Your task to perform on an android device: check out phone information Image 0: 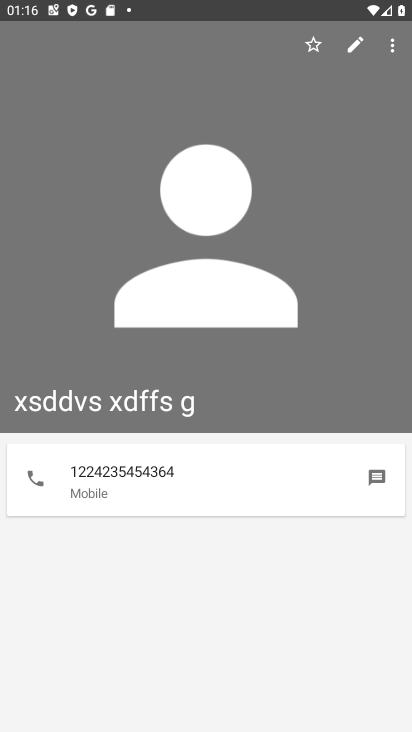
Step 0: press home button
Your task to perform on an android device: check out phone information Image 1: 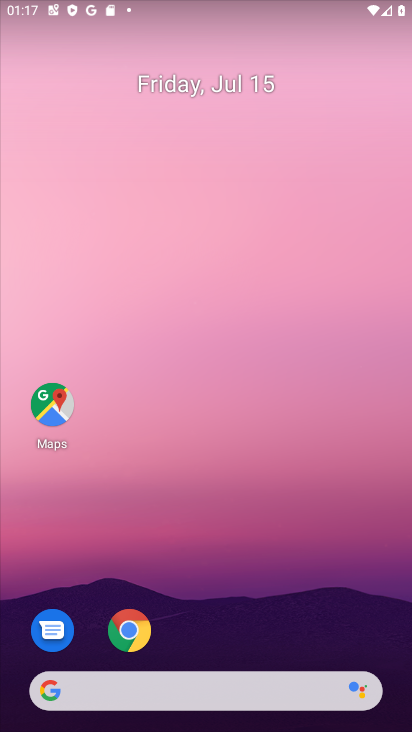
Step 1: drag from (228, 640) to (219, 344)
Your task to perform on an android device: check out phone information Image 2: 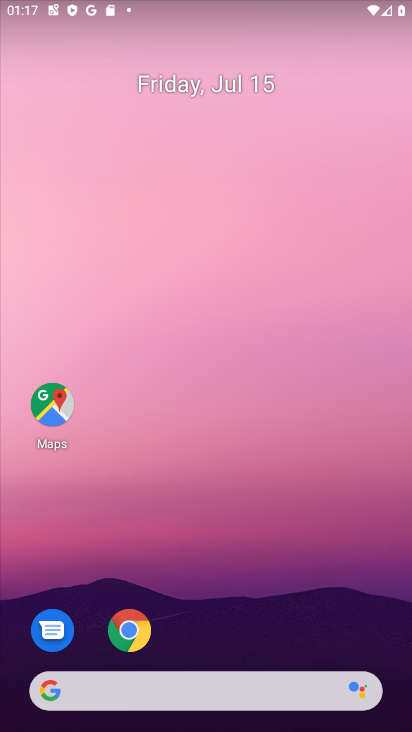
Step 2: drag from (215, 654) to (206, 132)
Your task to perform on an android device: check out phone information Image 3: 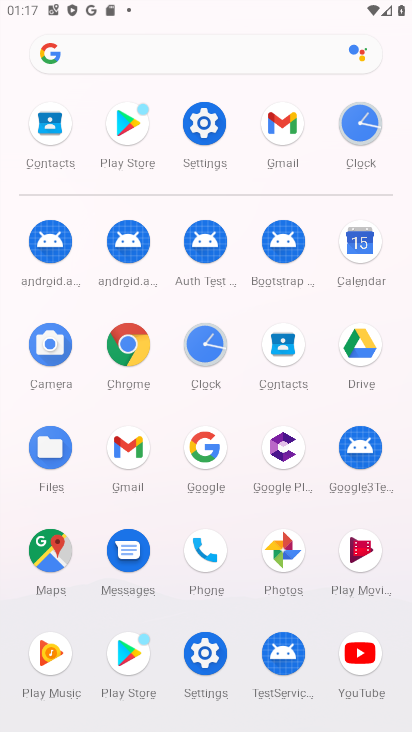
Step 3: click (226, 124)
Your task to perform on an android device: check out phone information Image 4: 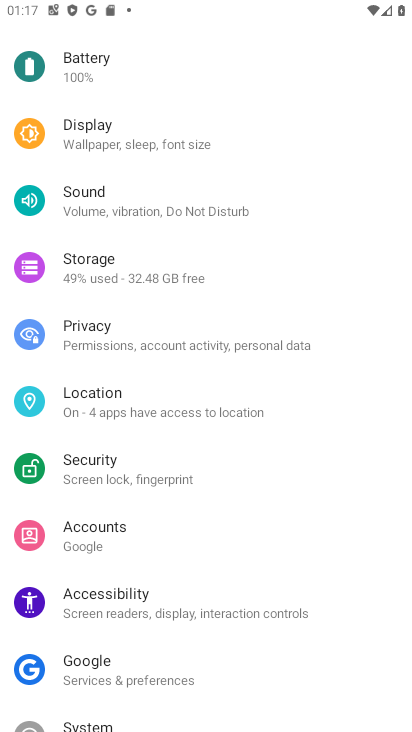
Step 4: click (150, 724)
Your task to perform on an android device: check out phone information Image 5: 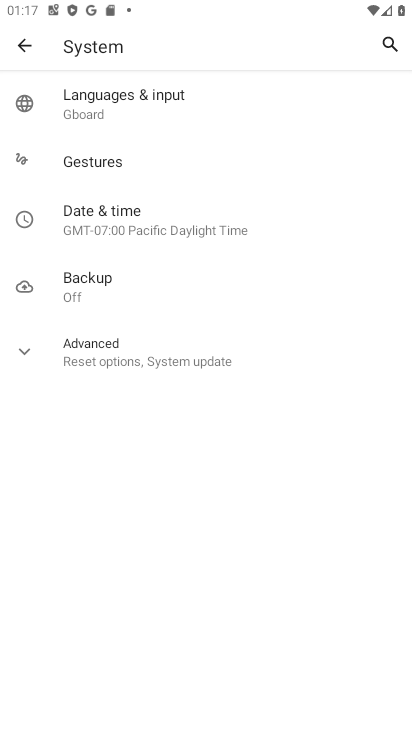
Step 5: task complete